Your task to perform on an android device: toggle airplane mode Image 0: 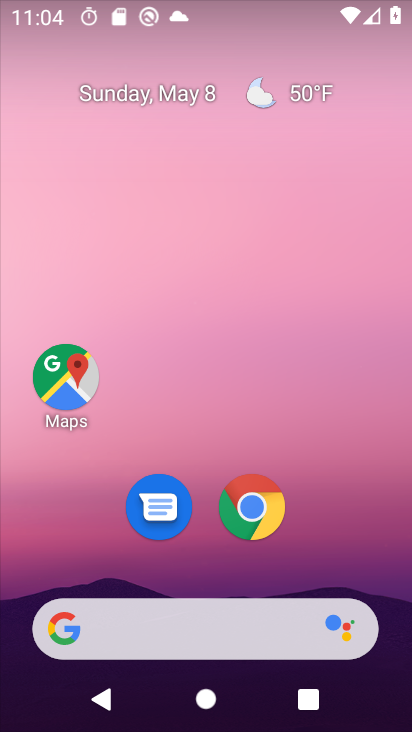
Step 0: drag from (174, 717) to (168, 322)
Your task to perform on an android device: toggle airplane mode Image 1: 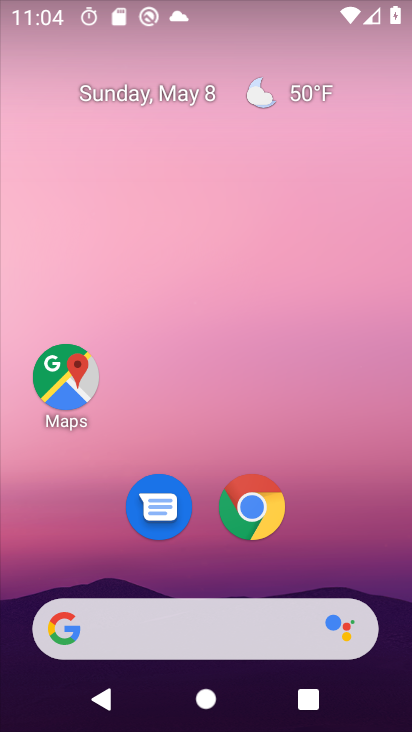
Step 1: drag from (174, 725) to (181, 141)
Your task to perform on an android device: toggle airplane mode Image 2: 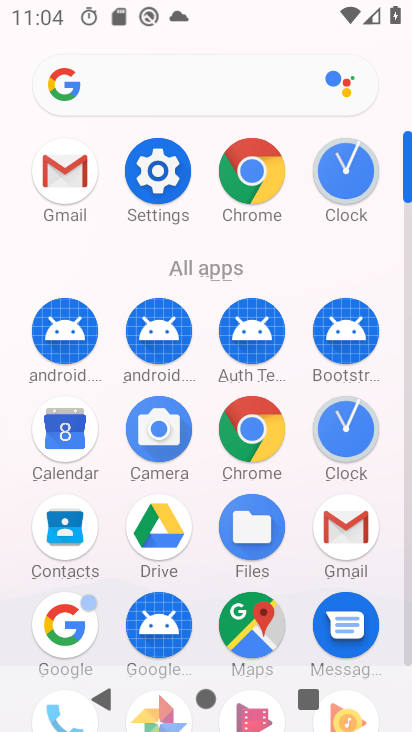
Step 2: click (148, 184)
Your task to perform on an android device: toggle airplane mode Image 3: 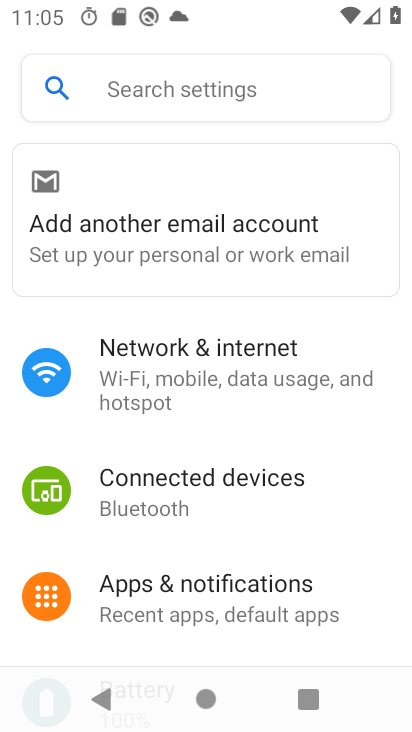
Step 3: click (189, 385)
Your task to perform on an android device: toggle airplane mode Image 4: 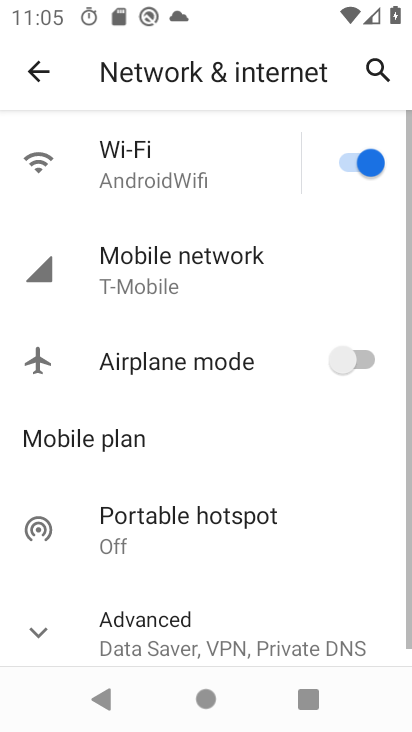
Step 4: click (370, 359)
Your task to perform on an android device: toggle airplane mode Image 5: 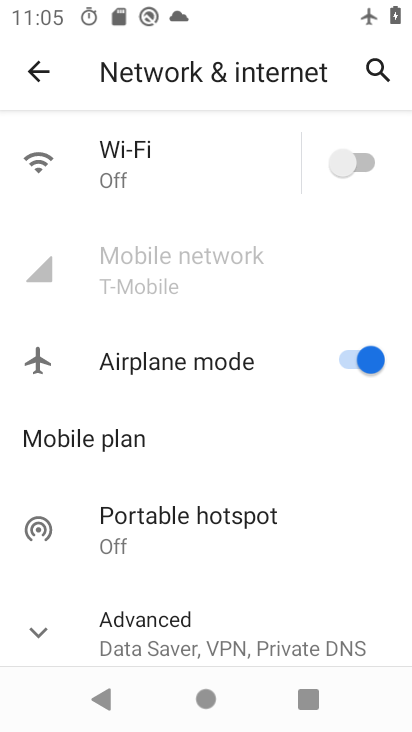
Step 5: task complete